Your task to perform on an android device: Check the weather Image 0: 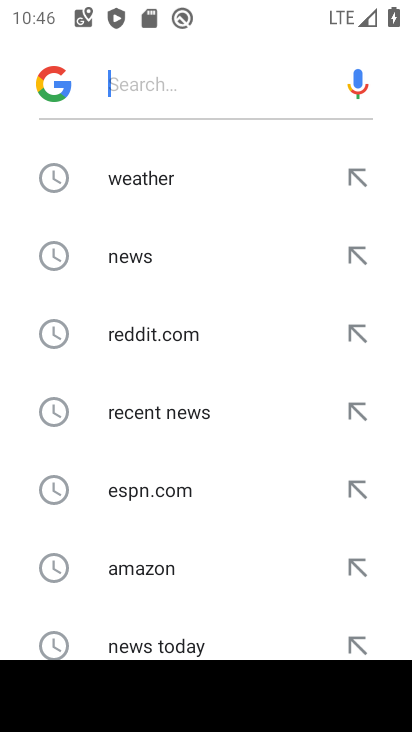
Step 0: click (188, 180)
Your task to perform on an android device: Check the weather Image 1: 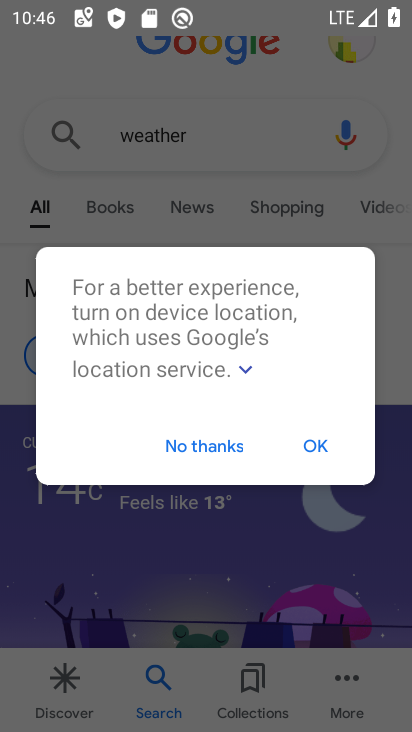
Step 1: click (166, 448)
Your task to perform on an android device: Check the weather Image 2: 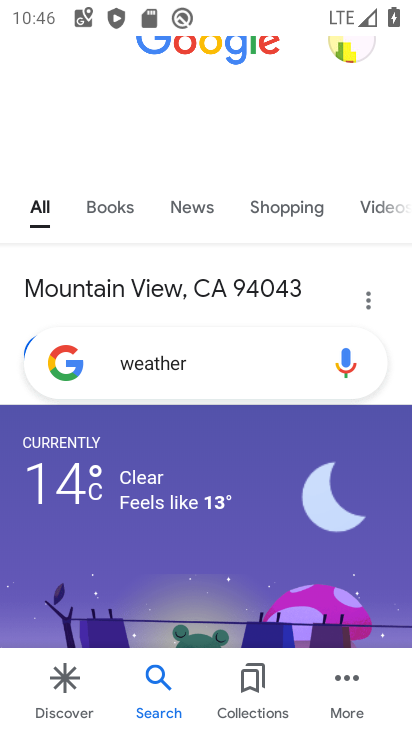
Step 2: task complete